Your task to perform on an android device: What's the weather going to be tomorrow? Image 0: 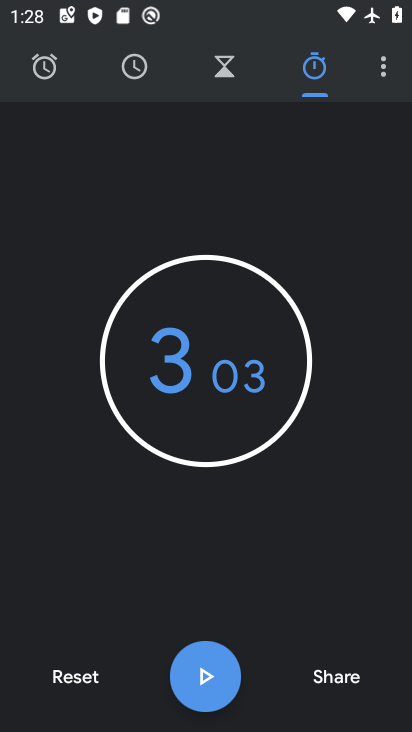
Step 0: press home button
Your task to perform on an android device: What's the weather going to be tomorrow? Image 1: 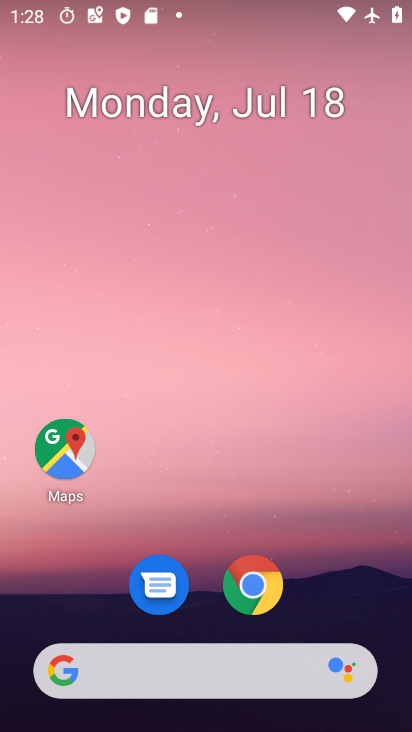
Step 1: click (203, 655)
Your task to perform on an android device: What's the weather going to be tomorrow? Image 2: 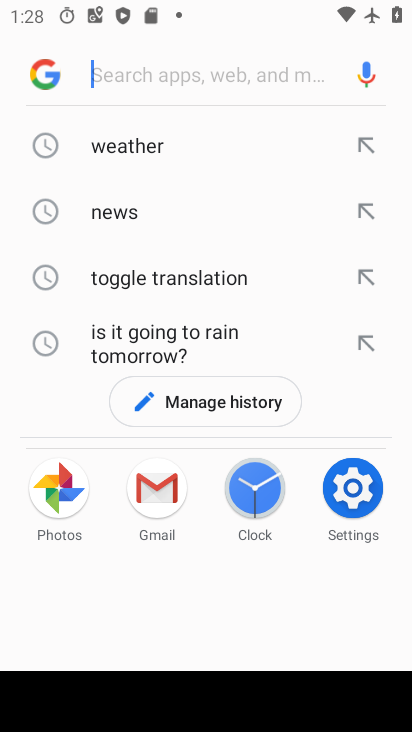
Step 2: click (153, 152)
Your task to perform on an android device: What's the weather going to be tomorrow? Image 3: 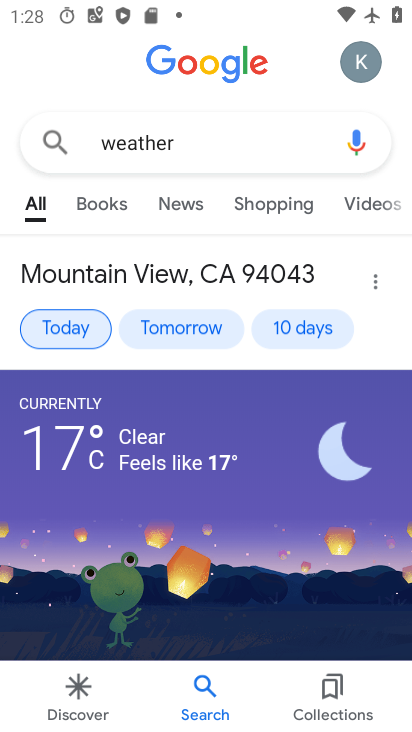
Step 3: click (177, 333)
Your task to perform on an android device: What's the weather going to be tomorrow? Image 4: 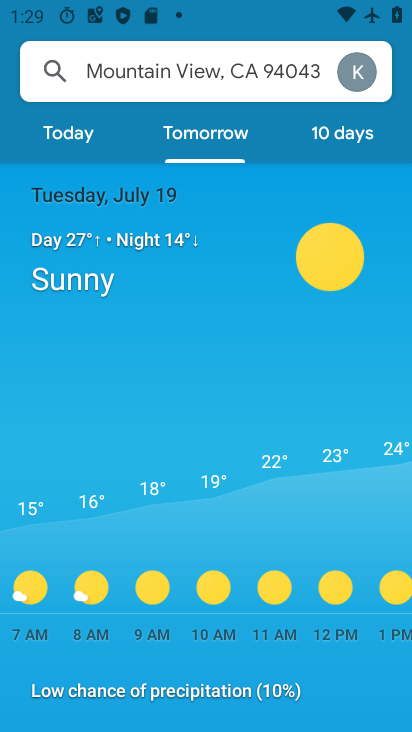
Step 4: task complete